Your task to perform on an android device: Open the web browser Image 0: 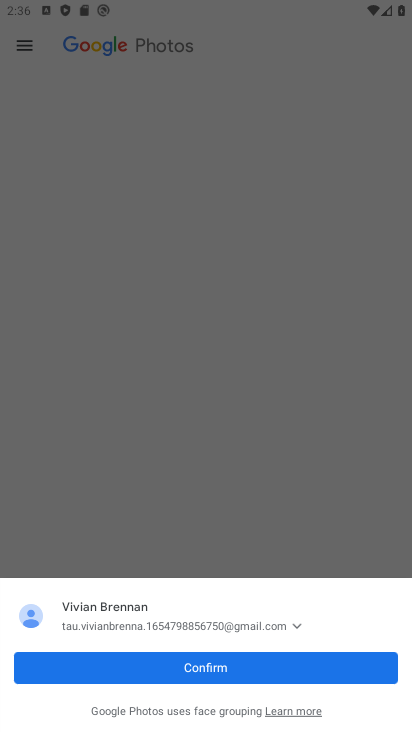
Step 0: press home button
Your task to perform on an android device: Open the web browser Image 1: 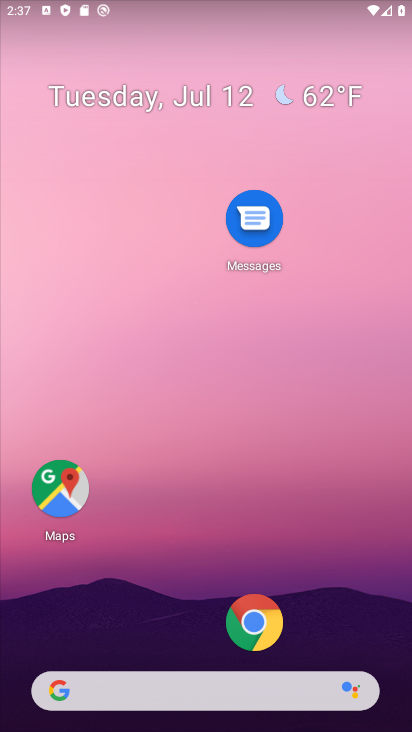
Step 1: click (252, 622)
Your task to perform on an android device: Open the web browser Image 2: 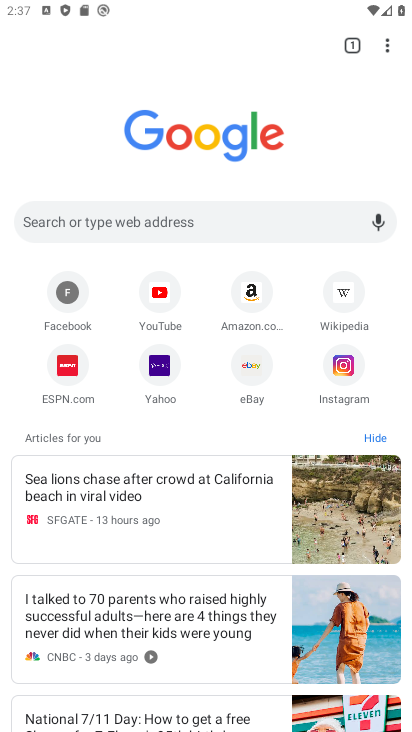
Step 2: task complete